Your task to perform on an android device: toggle pop-ups in chrome Image 0: 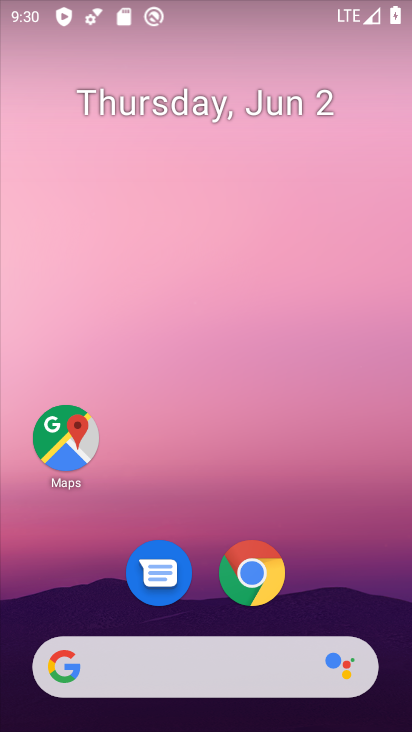
Step 0: click (250, 572)
Your task to perform on an android device: toggle pop-ups in chrome Image 1: 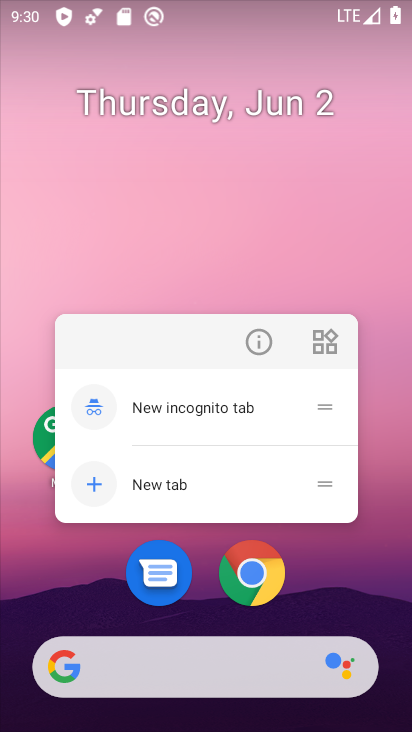
Step 1: click (250, 572)
Your task to perform on an android device: toggle pop-ups in chrome Image 2: 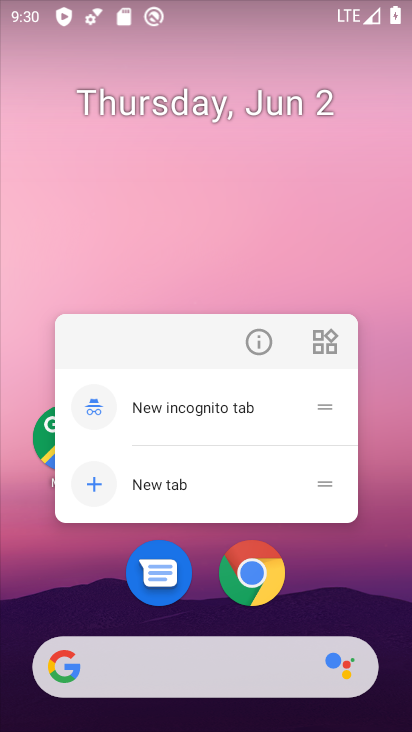
Step 2: click (336, 569)
Your task to perform on an android device: toggle pop-ups in chrome Image 3: 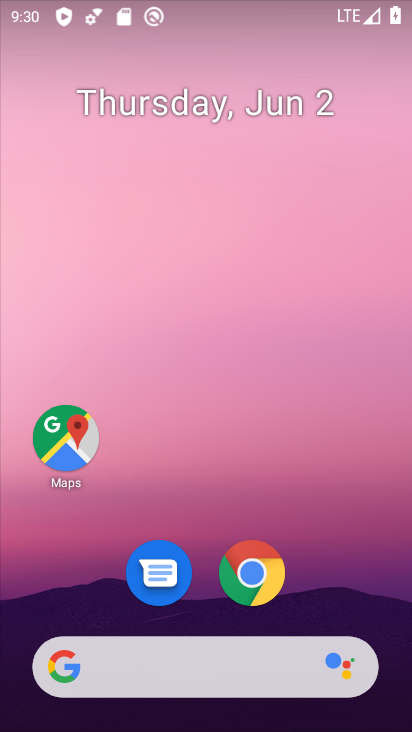
Step 3: click (253, 563)
Your task to perform on an android device: toggle pop-ups in chrome Image 4: 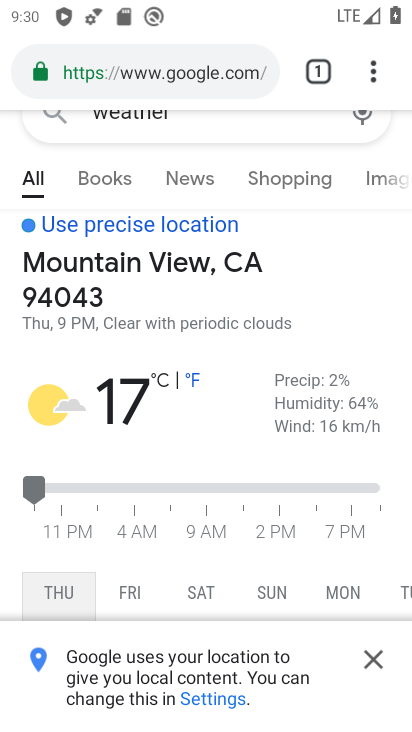
Step 4: drag from (371, 73) to (177, 573)
Your task to perform on an android device: toggle pop-ups in chrome Image 5: 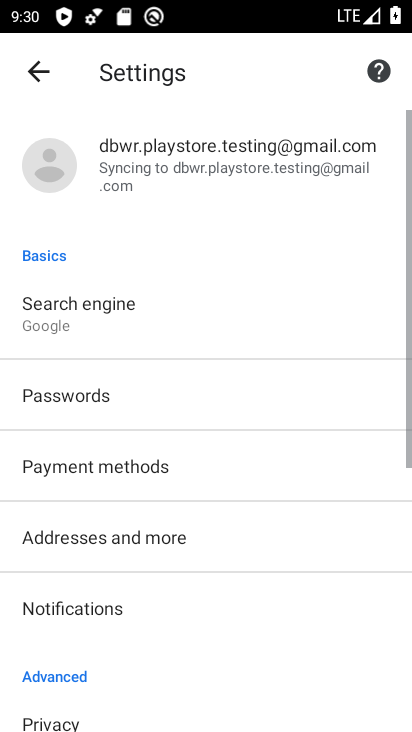
Step 5: drag from (177, 570) to (200, 156)
Your task to perform on an android device: toggle pop-ups in chrome Image 6: 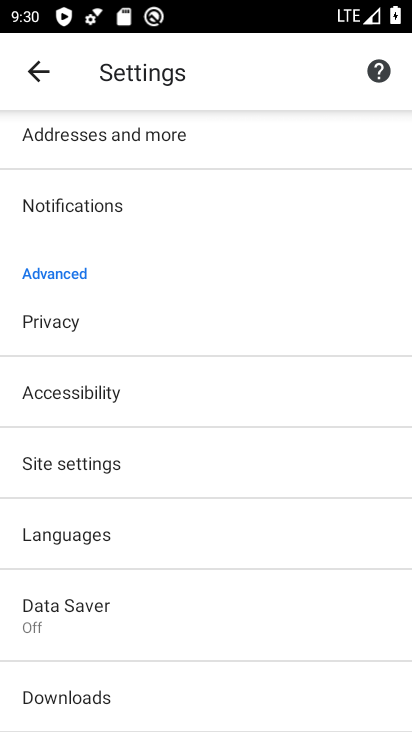
Step 6: click (92, 453)
Your task to perform on an android device: toggle pop-ups in chrome Image 7: 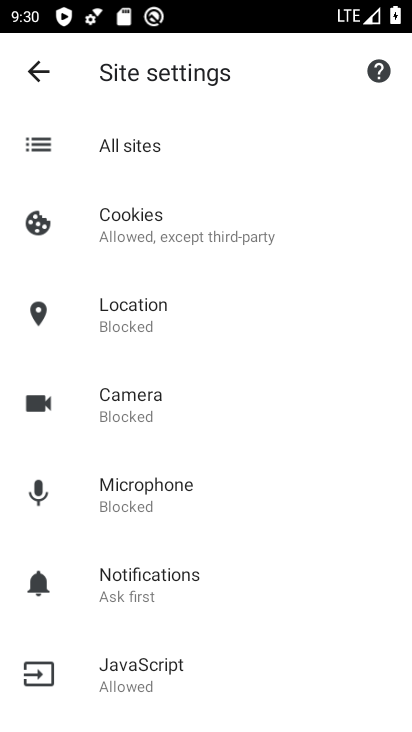
Step 7: drag from (258, 556) to (322, 154)
Your task to perform on an android device: toggle pop-ups in chrome Image 8: 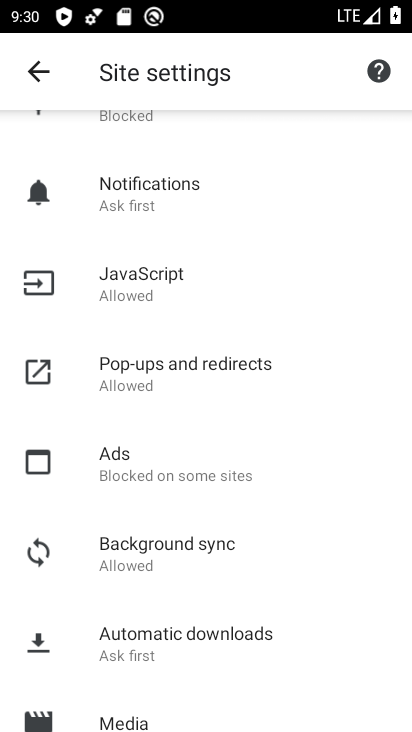
Step 8: click (185, 366)
Your task to perform on an android device: toggle pop-ups in chrome Image 9: 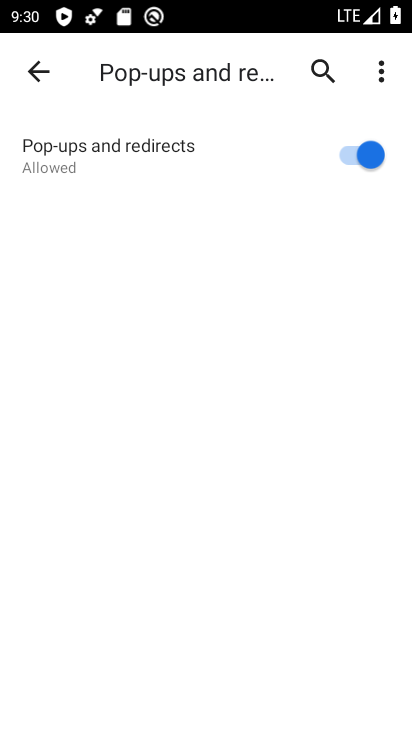
Step 9: click (341, 143)
Your task to perform on an android device: toggle pop-ups in chrome Image 10: 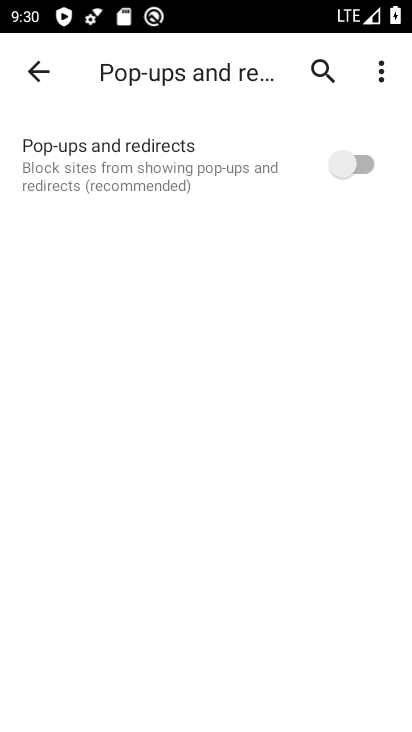
Step 10: task complete